Your task to perform on an android device: find photos in the google photos app Image 0: 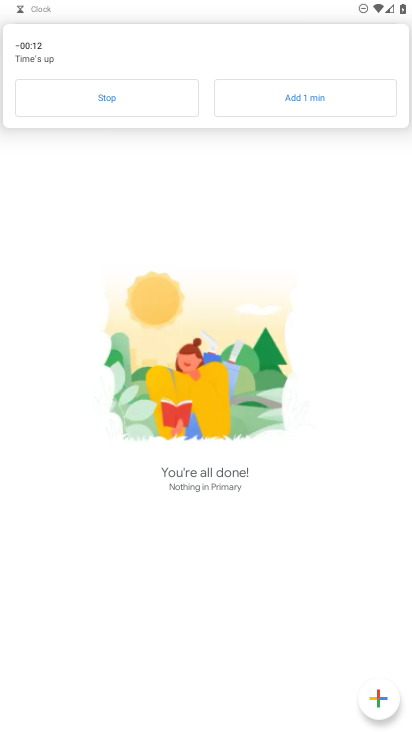
Step 0: press home button
Your task to perform on an android device: find photos in the google photos app Image 1: 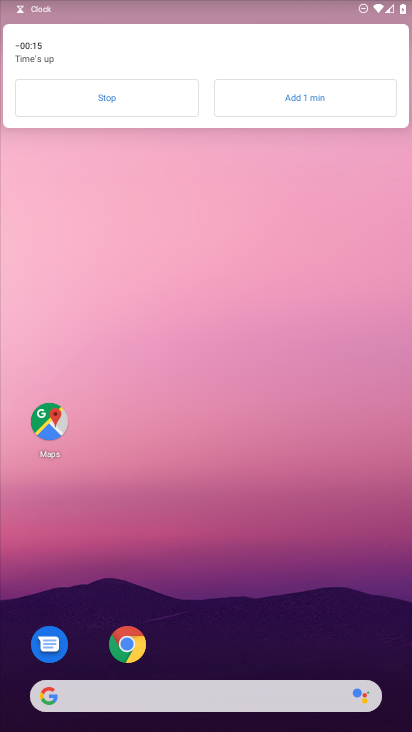
Step 1: drag from (400, 725) to (293, 152)
Your task to perform on an android device: find photos in the google photos app Image 2: 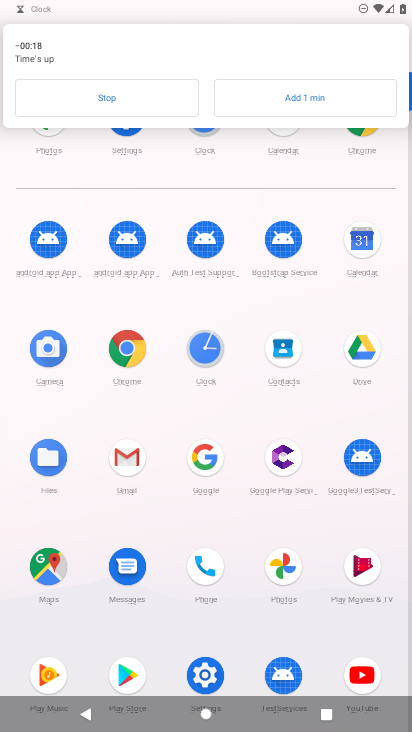
Step 2: click (276, 567)
Your task to perform on an android device: find photos in the google photos app Image 3: 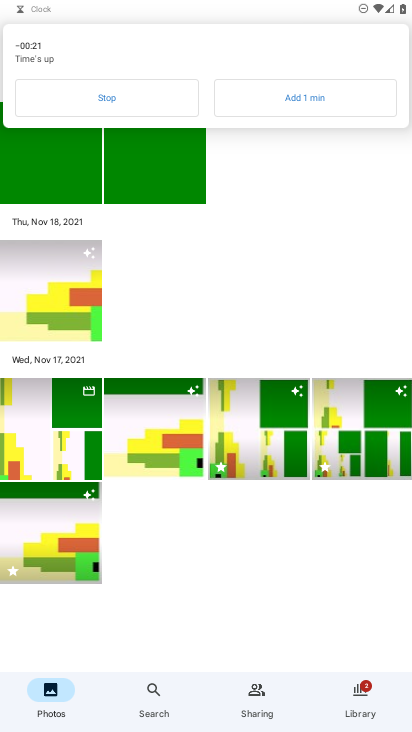
Step 3: drag from (175, 591) to (193, 484)
Your task to perform on an android device: find photos in the google photos app Image 4: 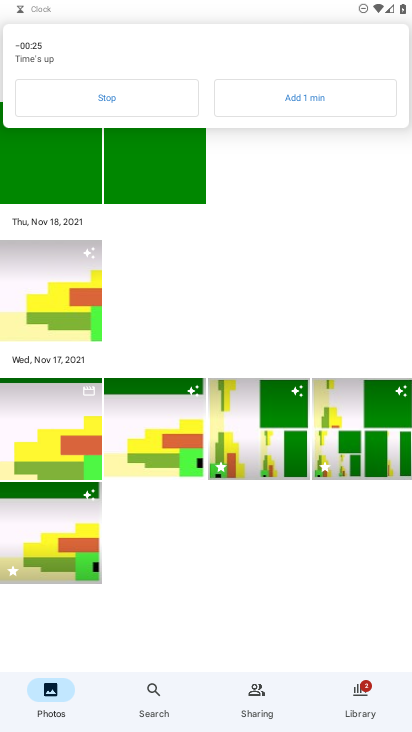
Step 4: click (53, 451)
Your task to perform on an android device: find photos in the google photos app Image 5: 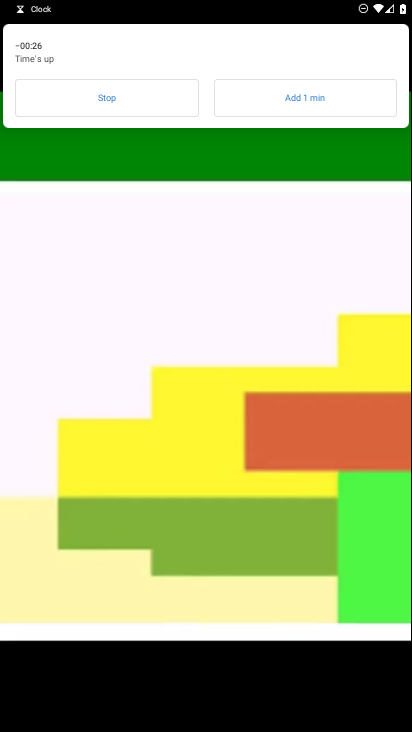
Step 5: click (367, 342)
Your task to perform on an android device: find photos in the google photos app Image 6: 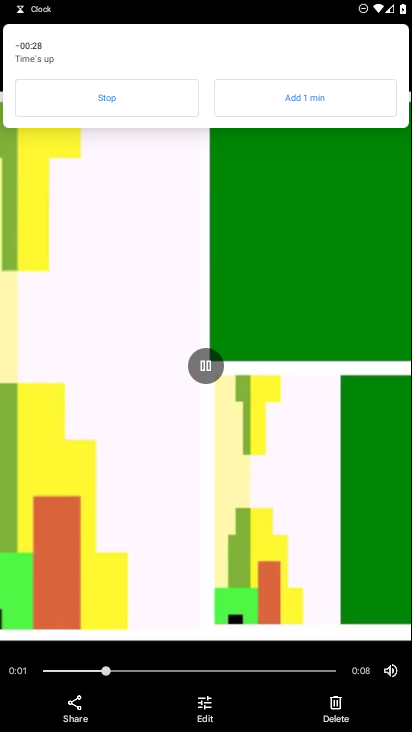
Step 6: click (128, 102)
Your task to perform on an android device: find photos in the google photos app Image 7: 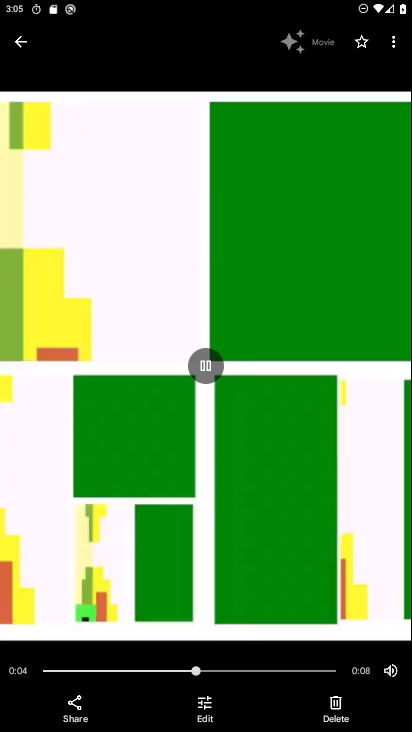
Step 7: click (26, 44)
Your task to perform on an android device: find photos in the google photos app Image 8: 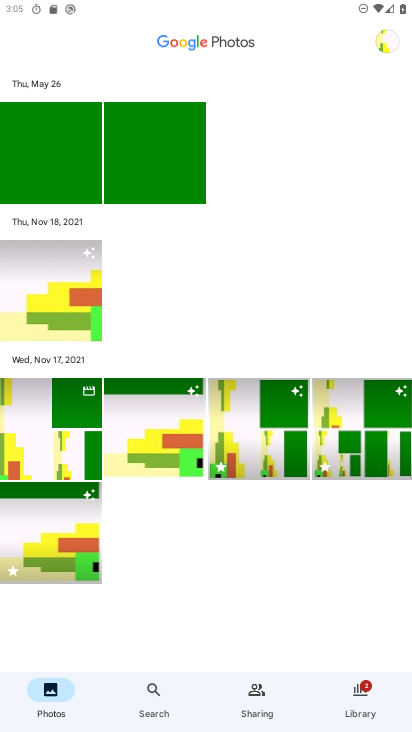
Step 8: click (252, 410)
Your task to perform on an android device: find photos in the google photos app Image 9: 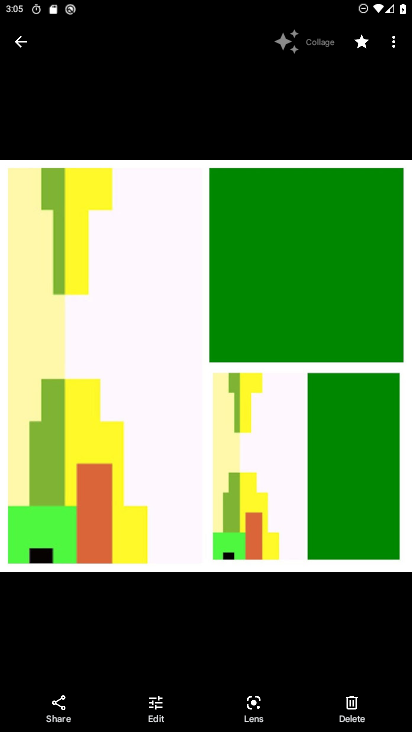
Step 9: click (17, 43)
Your task to perform on an android device: find photos in the google photos app Image 10: 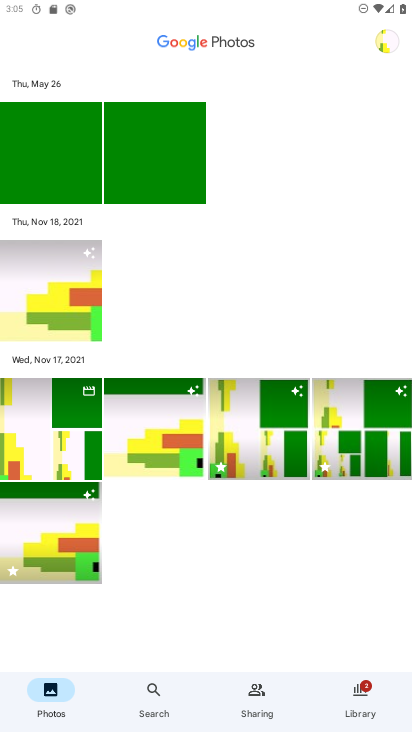
Step 10: click (363, 405)
Your task to perform on an android device: find photos in the google photos app Image 11: 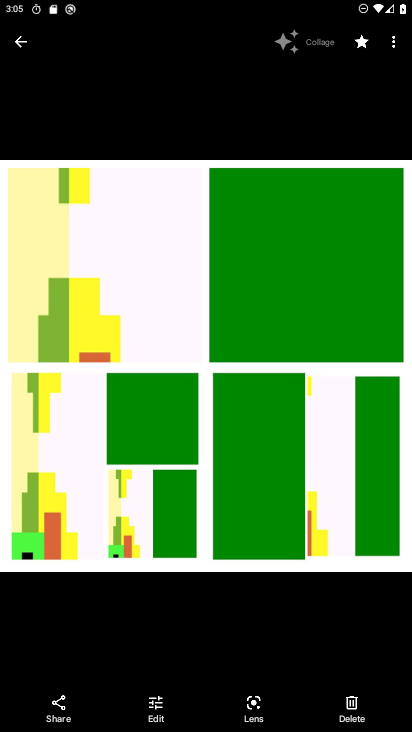
Step 11: click (23, 47)
Your task to perform on an android device: find photos in the google photos app Image 12: 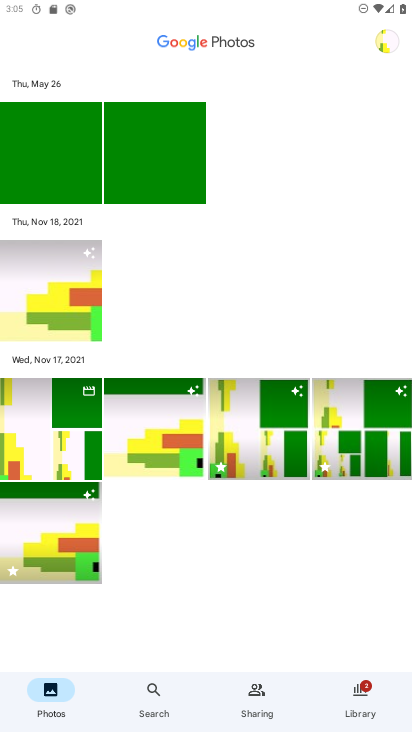
Step 12: task complete